Your task to perform on an android device: empty trash in the gmail app Image 0: 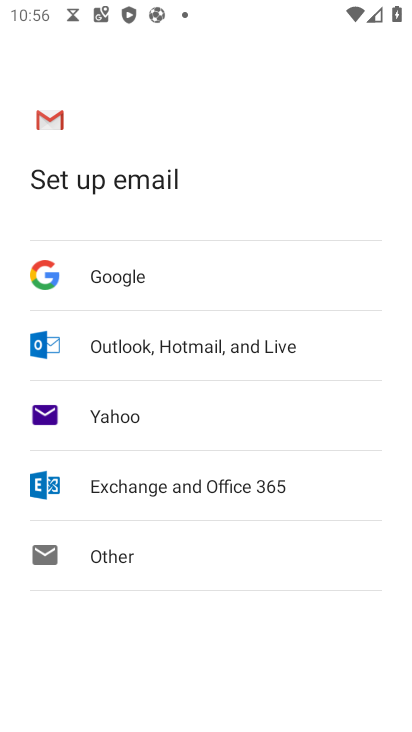
Step 0: press home button
Your task to perform on an android device: empty trash in the gmail app Image 1: 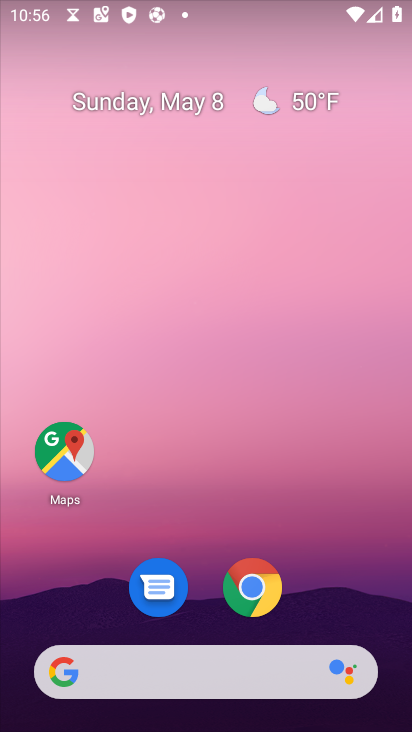
Step 1: drag from (322, 570) to (160, 27)
Your task to perform on an android device: empty trash in the gmail app Image 2: 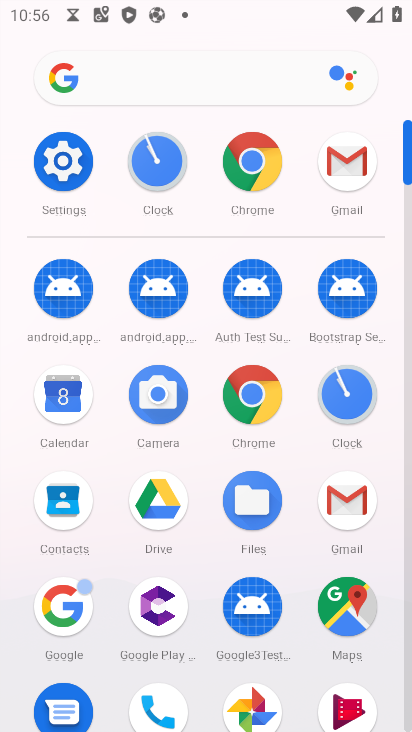
Step 2: click (356, 169)
Your task to perform on an android device: empty trash in the gmail app Image 3: 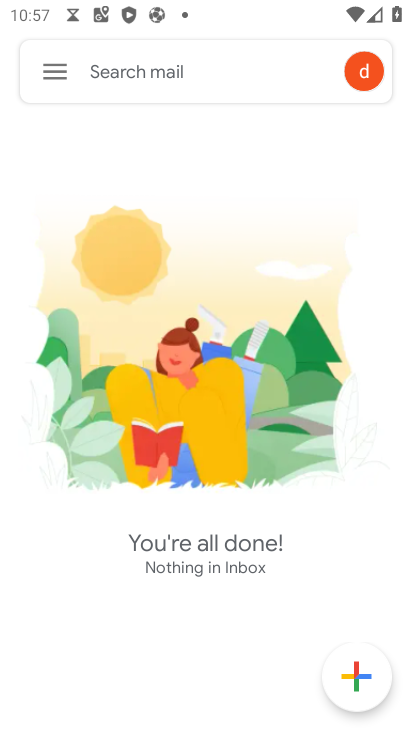
Step 3: click (54, 74)
Your task to perform on an android device: empty trash in the gmail app Image 4: 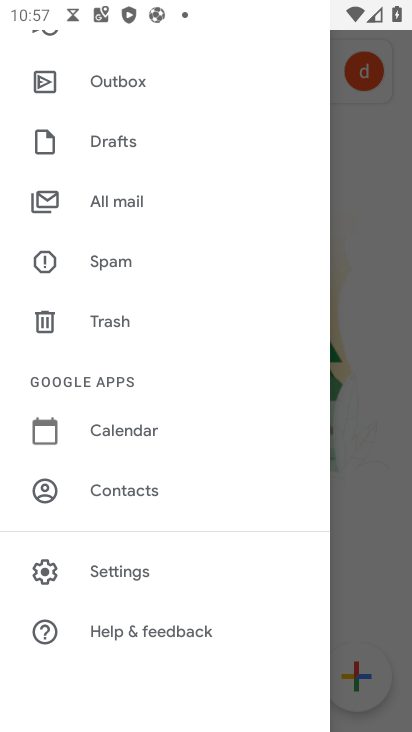
Step 4: click (105, 316)
Your task to perform on an android device: empty trash in the gmail app Image 5: 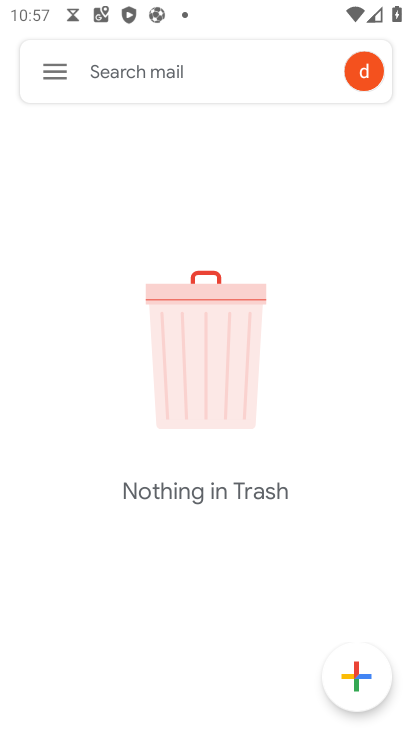
Step 5: task complete